Your task to perform on an android device: What is the recent news? Image 0: 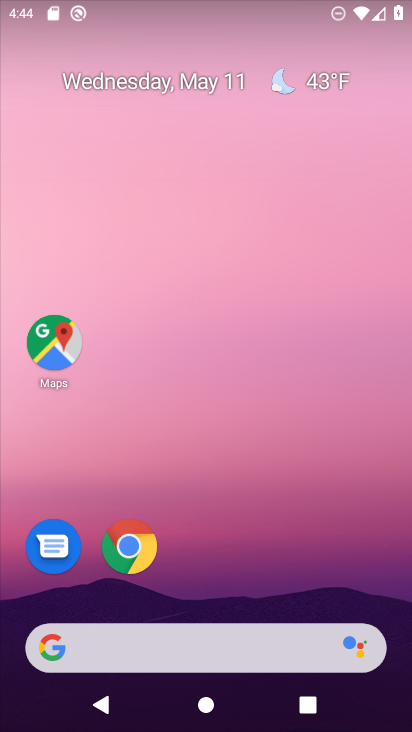
Step 0: drag from (219, 625) to (177, 311)
Your task to perform on an android device: What is the recent news? Image 1: 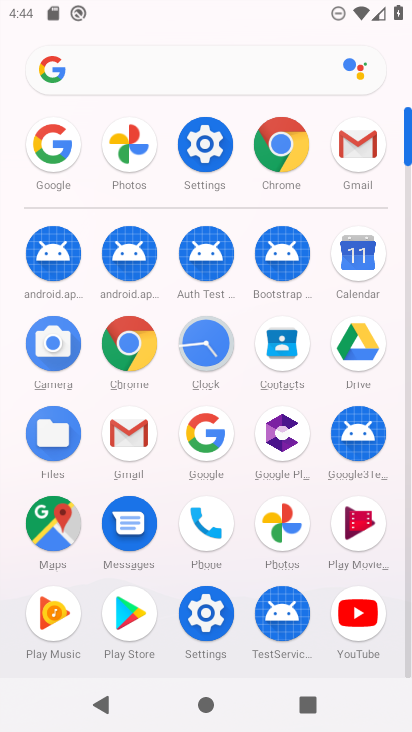
Step 1: click (211, 421)
Your task to perform on an android device: What is the recent news? Image 2: 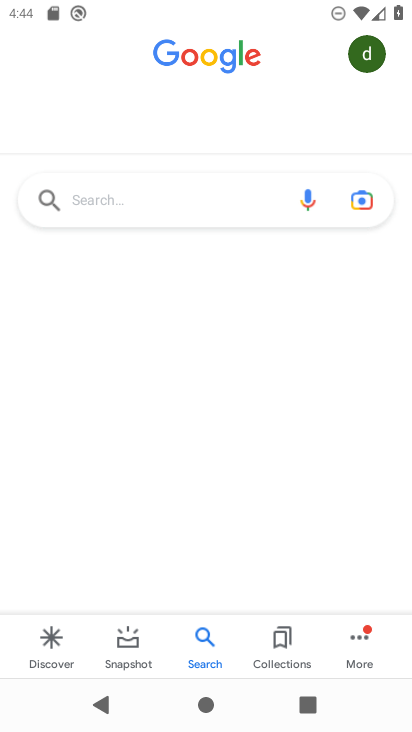
Step 2: click (123, 206)
Your task to perform on an android device: What is the recent news? Image 3: 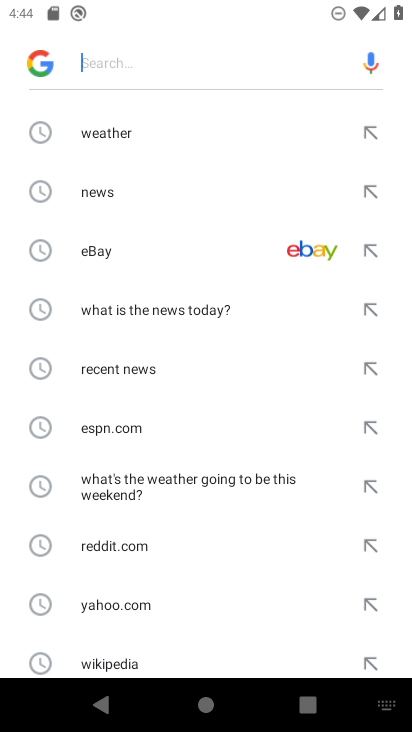
Step 3: click (101, 371)
Your task to perform on an android device: What is the recent news? Image 4: 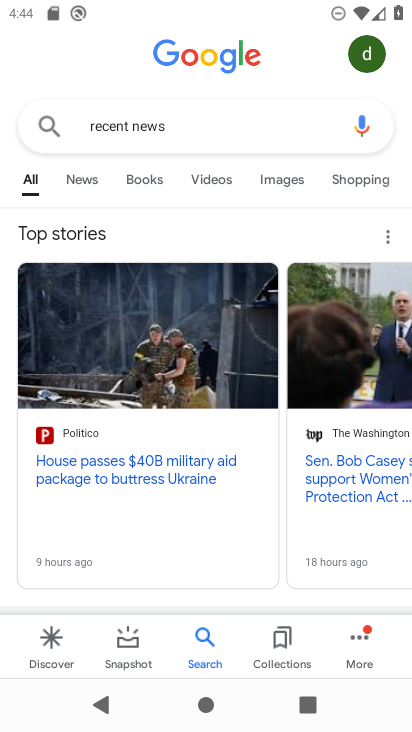
Step 4: task complete